Your task to perform on an android device: Go to accessibility settings Image 0: 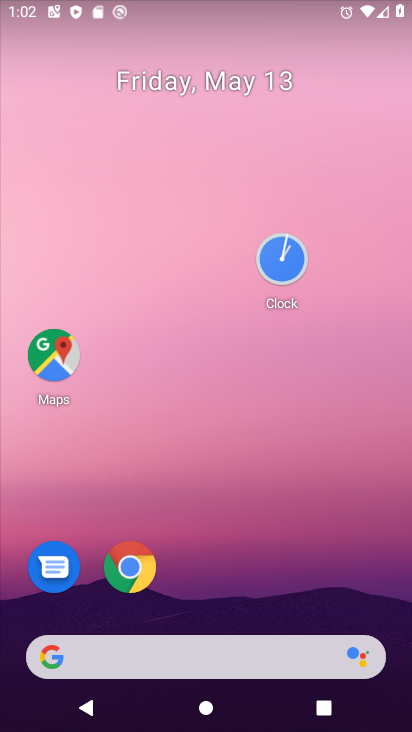
Step 0: drag from (260, 600) to (238, 14)
Your task to perform on an android device: Go to accessibility settings Image 1: 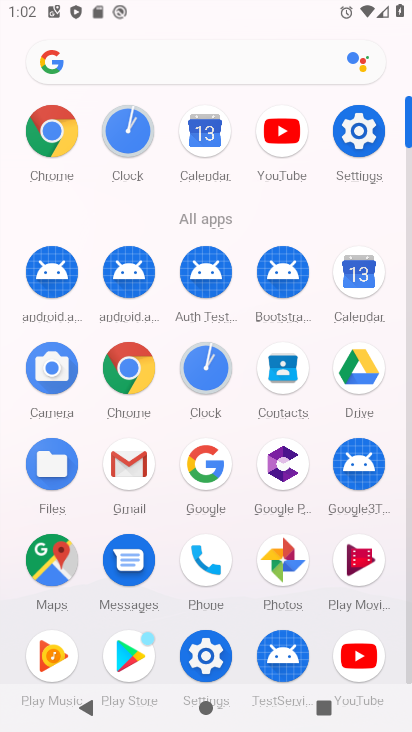
Step 1: click (335, 123)
Your task to perform on an android device: Go to accessibility settings Image 2: 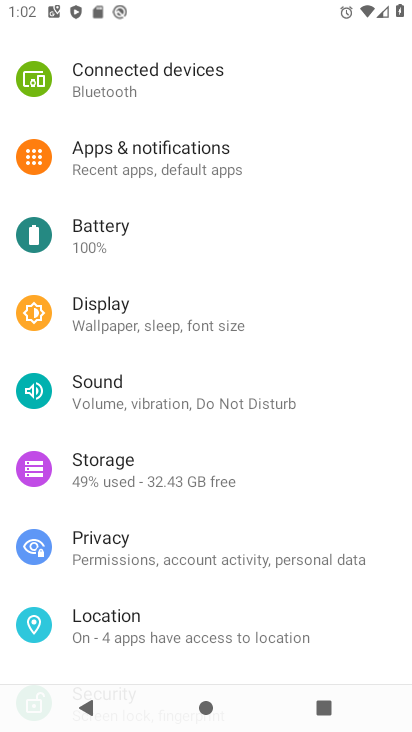
Step 2: drag from (203, 519) to (259, 256)
Your task to perform on an android device: Go to accessibility settings Image 3: 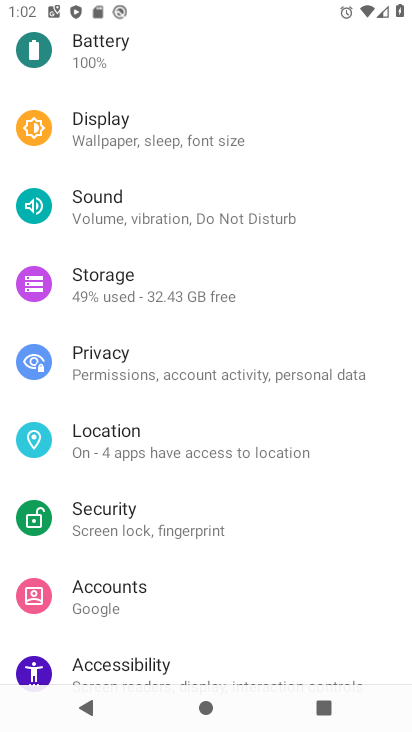
Step 3: click (177, 652)
Your task to perform on an android device: Go to accessibility settings Image 4: 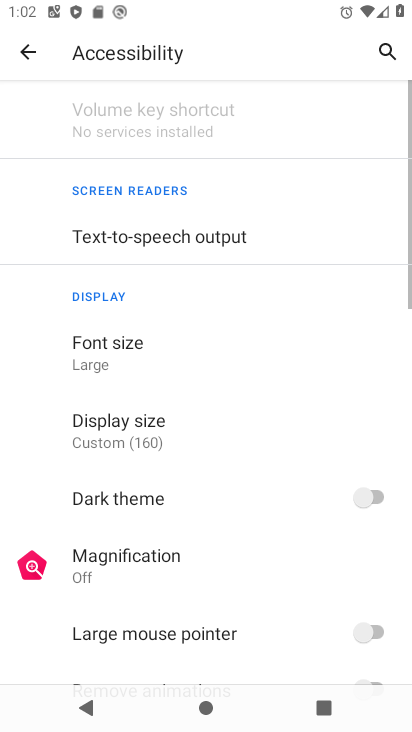
Step 4: task complete